Your task to perform on an android device: turn on location history Image 0: 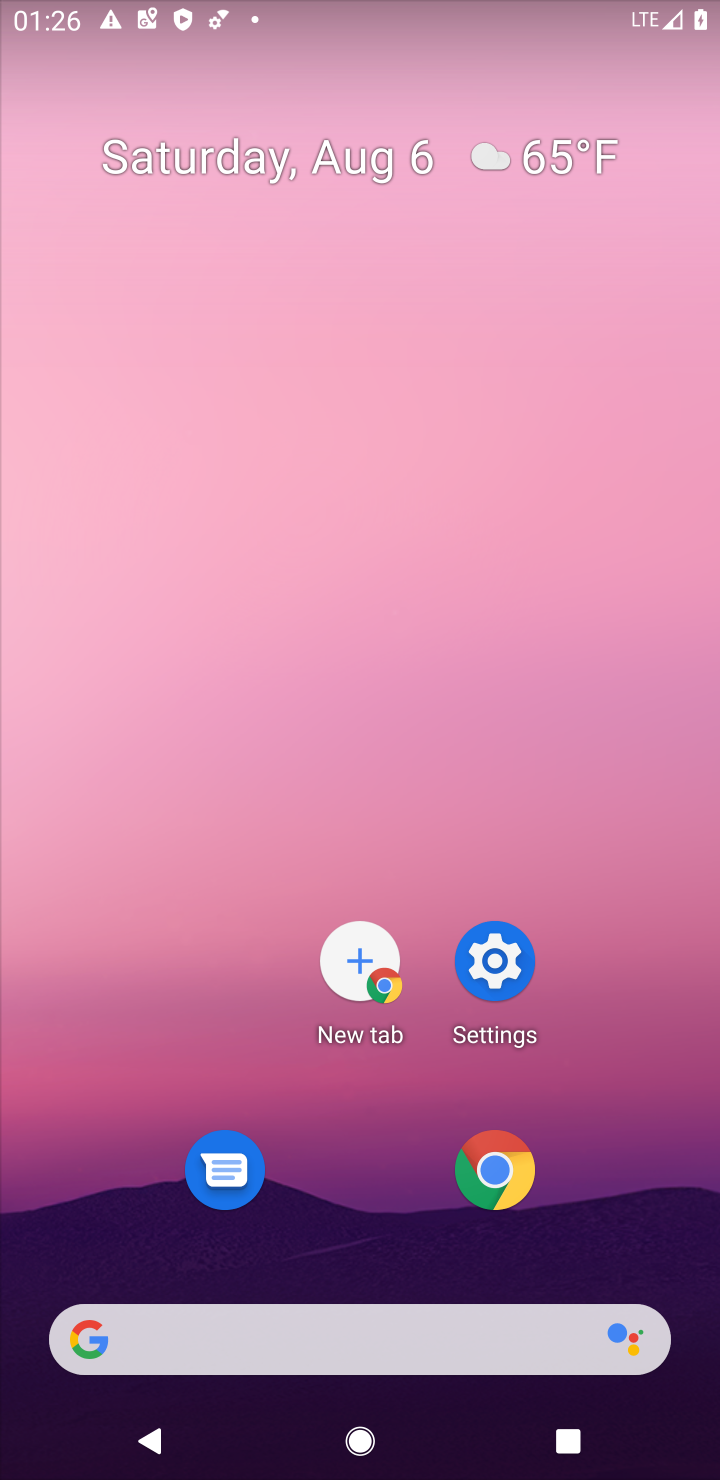
Step 0: click (479, 958)
Your task to perform on an android device: turn on location history Image 1: 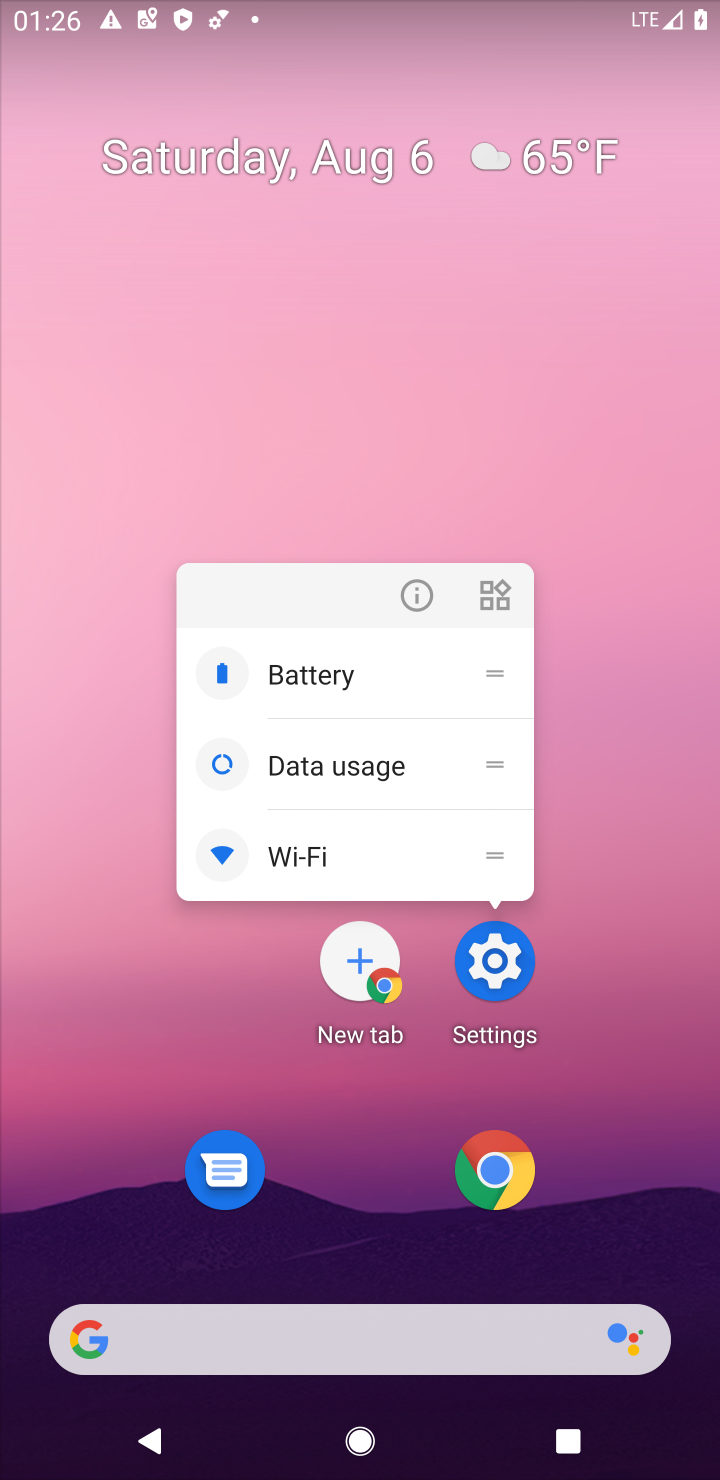
Step 1: click (560, 381)
Your task to perform on an android device: turn on location history Image 2: 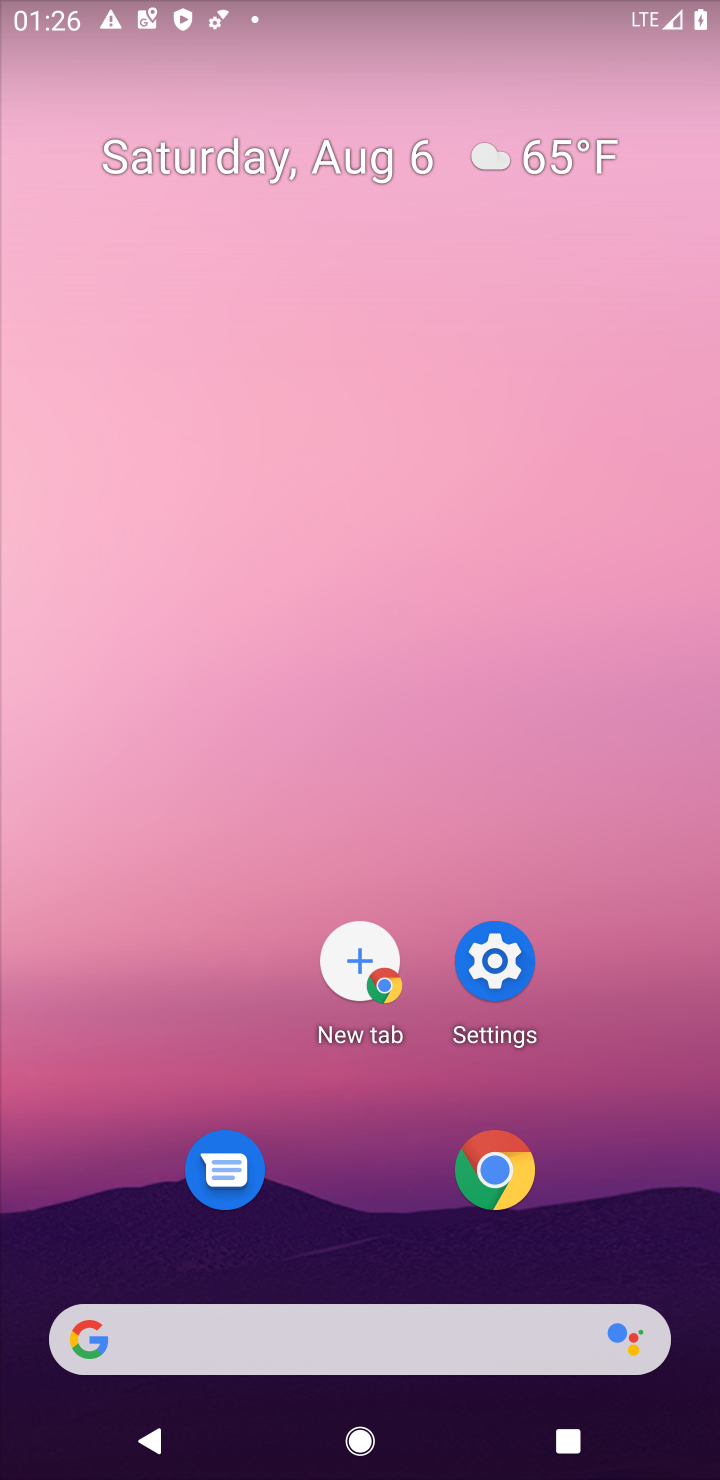
Step 2: click (497, 992)
Your task to perform on an android device: turn on location history Image 3: 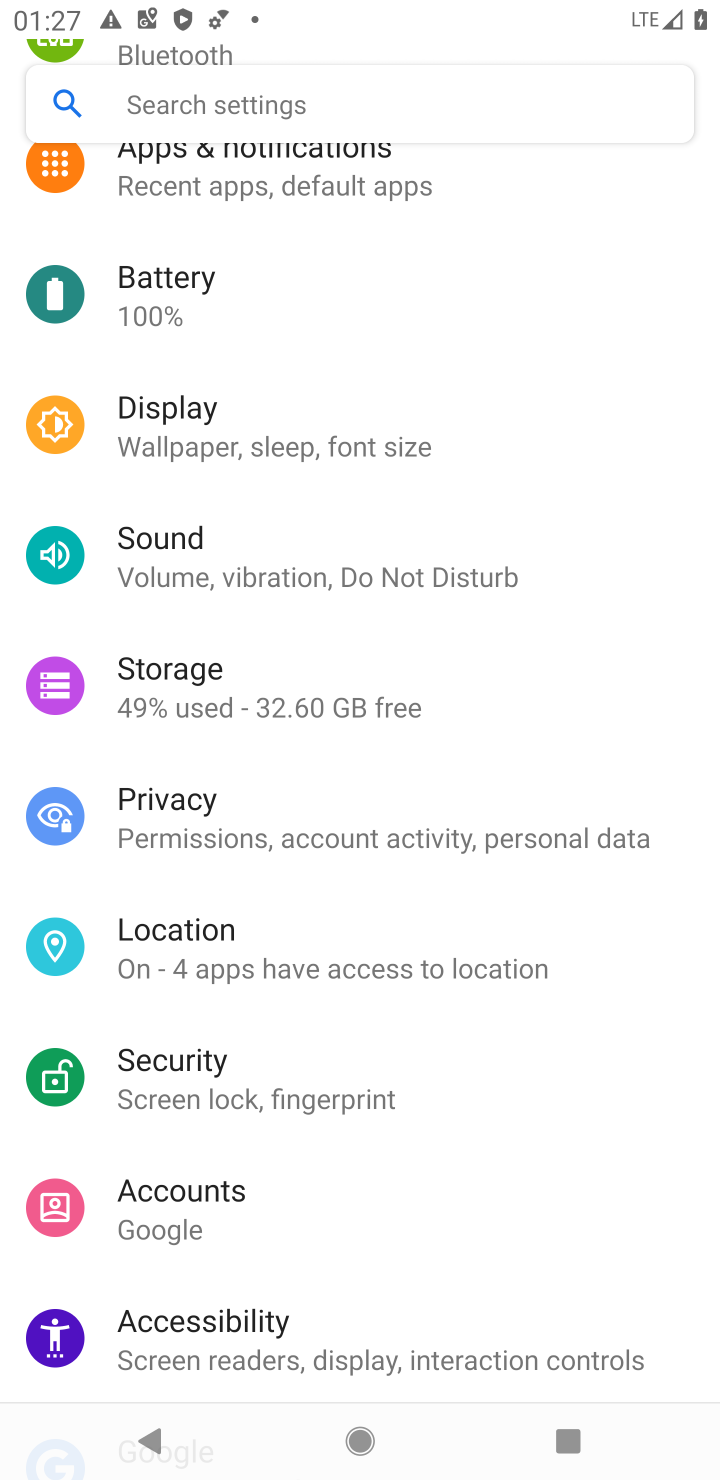
Step 3: click (266, 928)
Your task to perform on an android device: turn on location history Image 4: 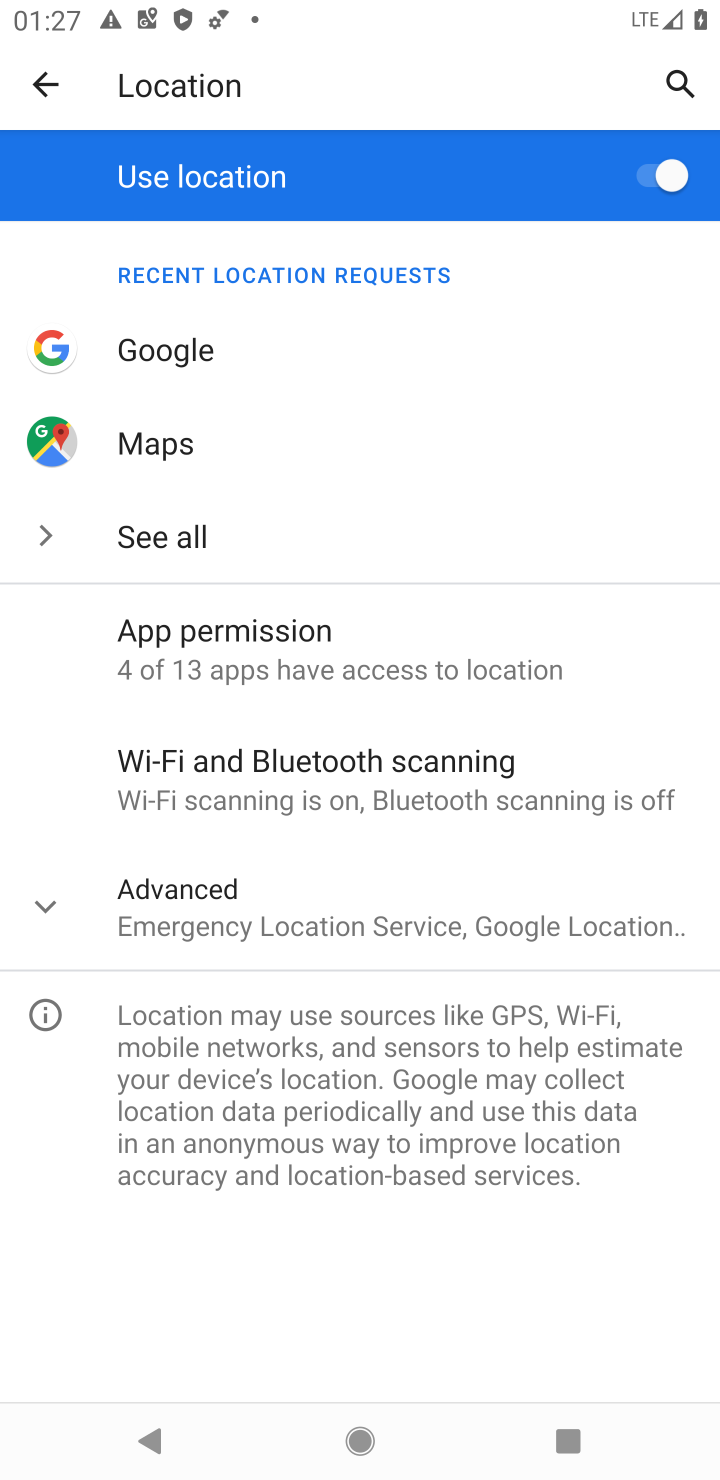
Step 4: click (66, 905)
Your task to perform on an android device: turn on location history Image 5: 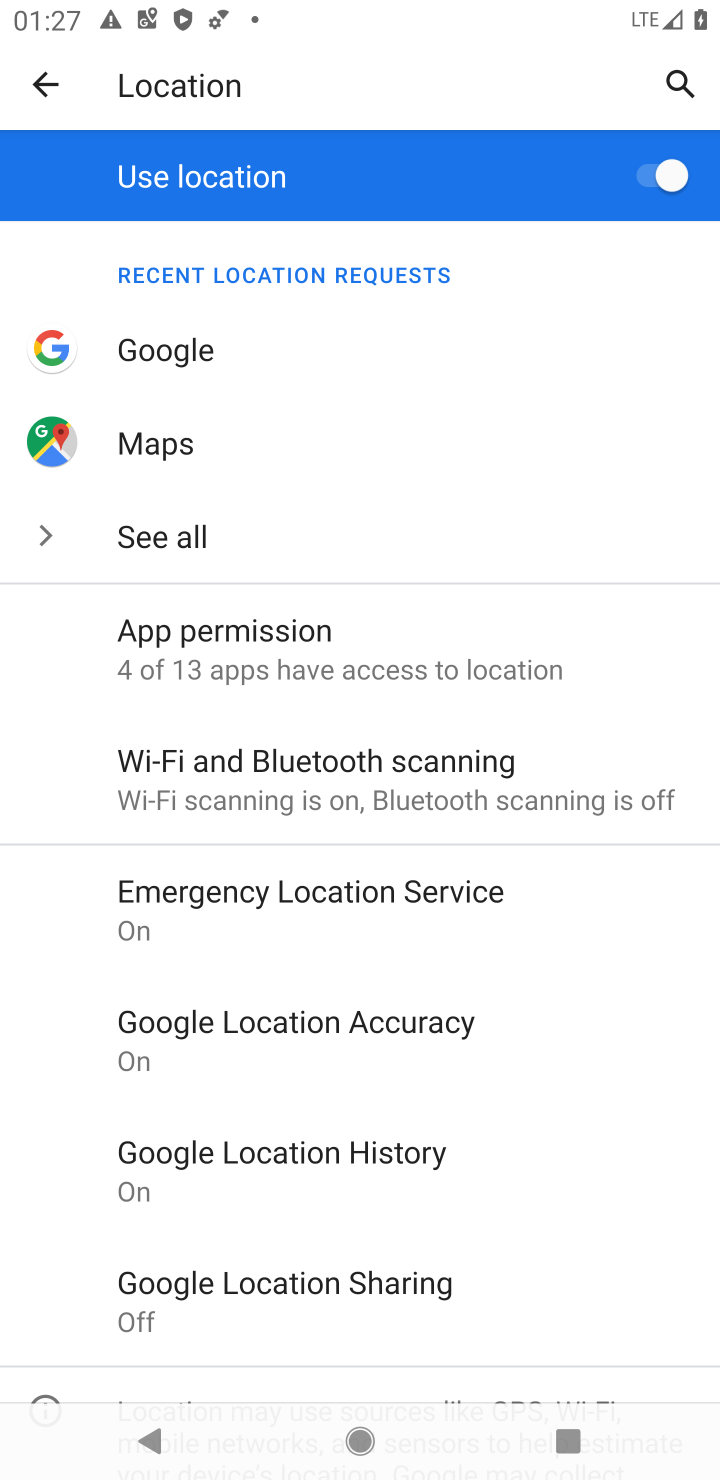
Step 5: click (284, 1155)
Your task to perform on an android device: turn on location history Image 6: 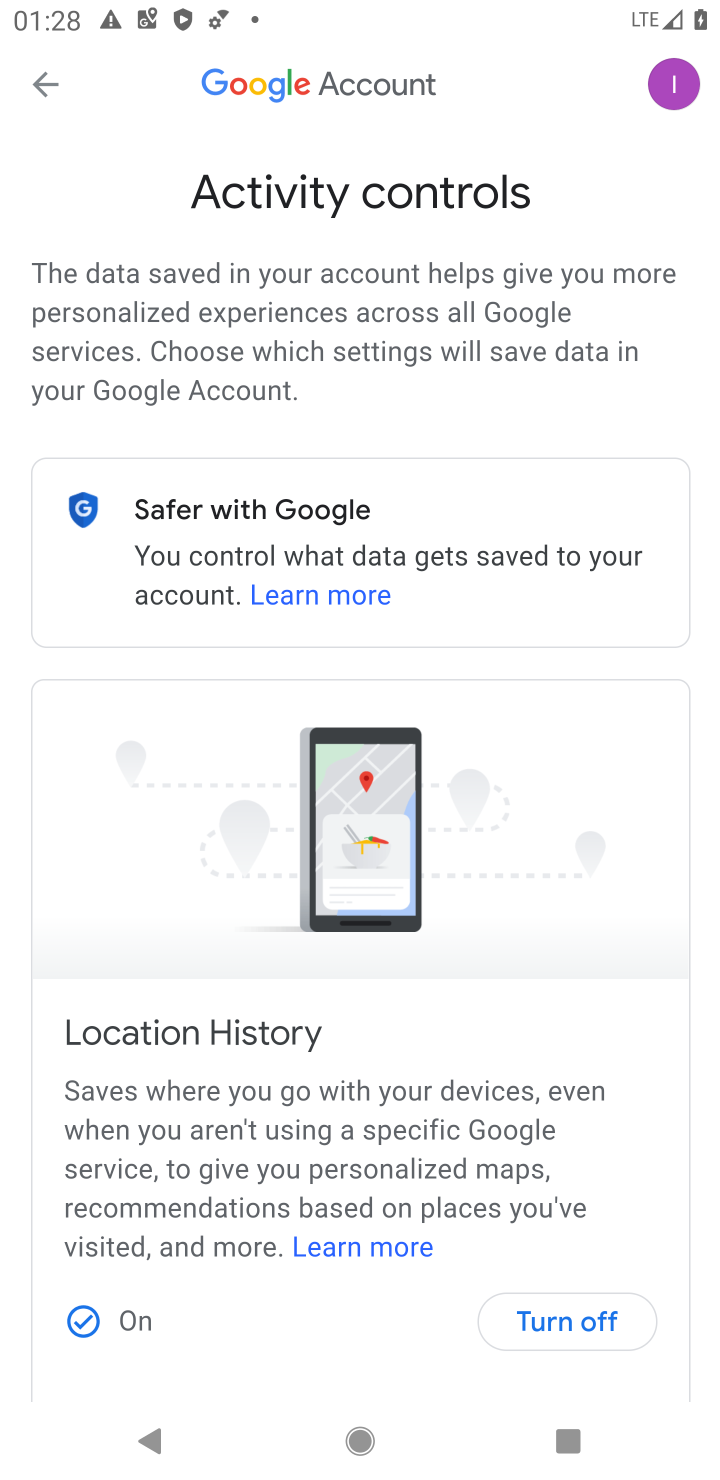
Step 6: task complete